Your task to perform on an android device: remove spam from my inbox in the gmail app Image 0: 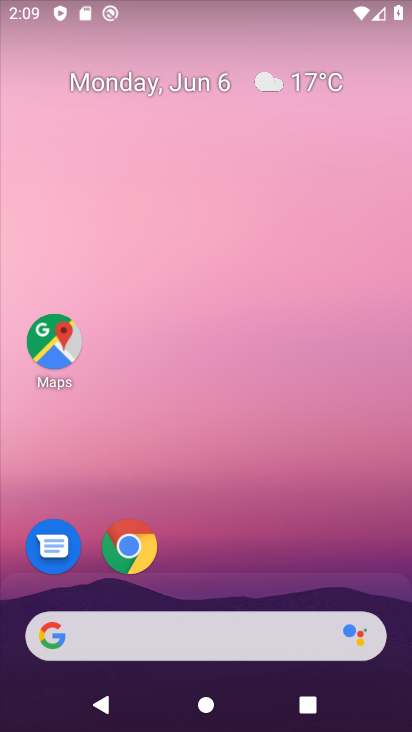
Step 0: drag from (255, 445) to (263, 210)
Your task to perform on an android device: remove spam from my inbox in the gmail app Image 1: 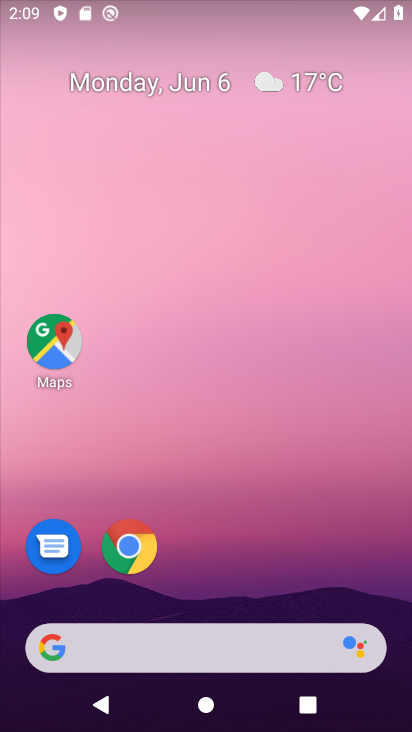
Step 1: drag from (261, 437) to (261, 292)
Your task to perform on an android device: remove spam from my inbox in the gmail app Image 2: 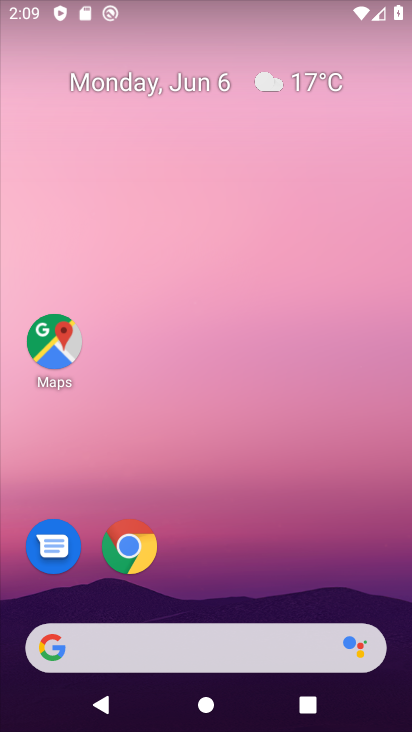
Step 2: drag from (254, 552) to (211, 268)
Your task to perform on an android device: remove spam from my inbox in the gmail app Image 3: 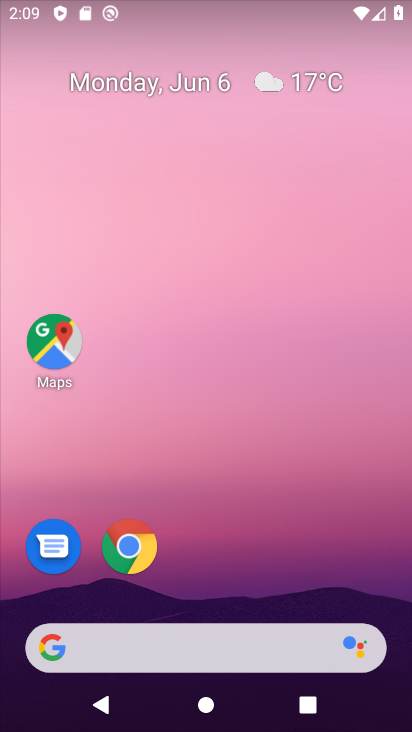
Step 3: drag from (245, 610) to (243, 222)
Your task to perform on an android device: remove spam from my inbox in the gmail app Image 4: 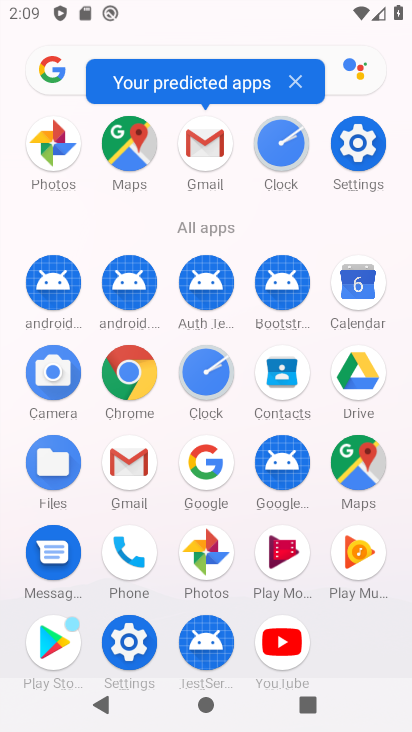
Step 4: click (120, 460)
Your task to perform on an android device: remove spam from my inbox in the gmail app Image 5: 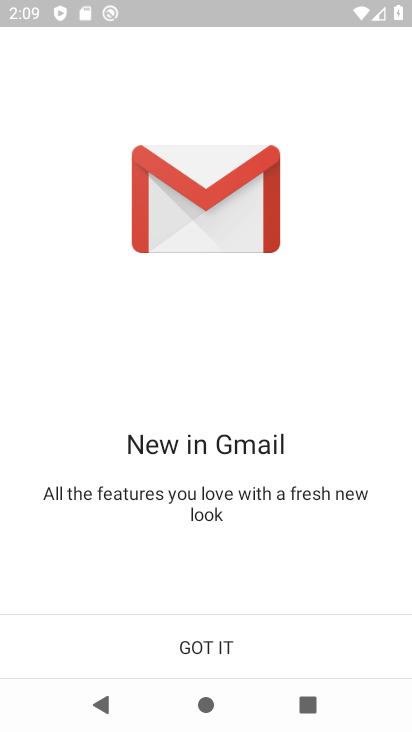
Step 5: click (224, 652)
Your task to perform on an android device: remove spam from my inbox in the gmail app Image 6: 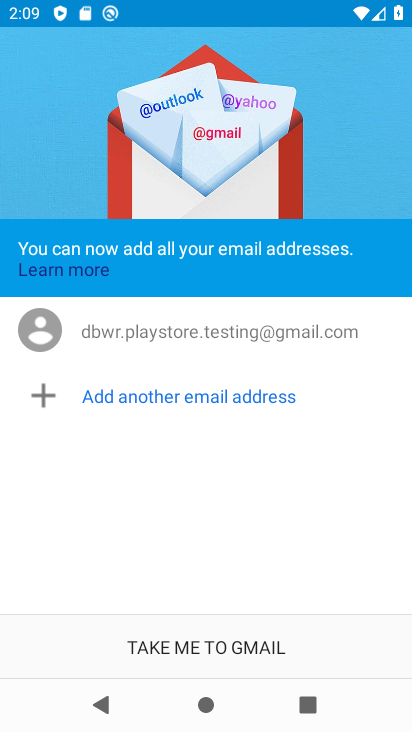
Step 6: click (224, 651)
Your task to perform on an android device: remove spam from my inbox in the gmail app Image 7: 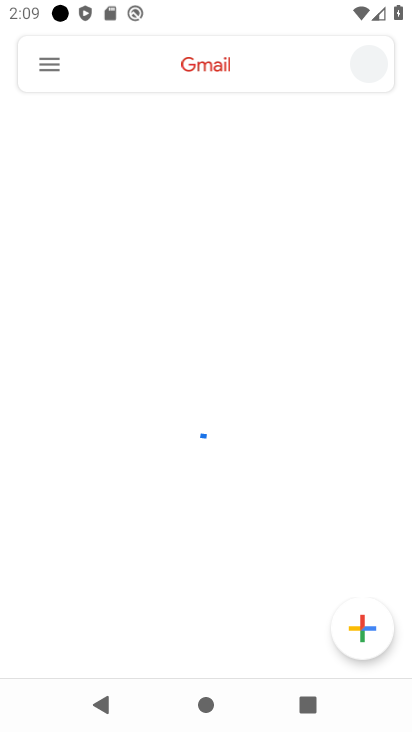
Step 7: click (51, 48)
Your task to perform on an android device: remove spam from my inbox in the gmail app Image 8: 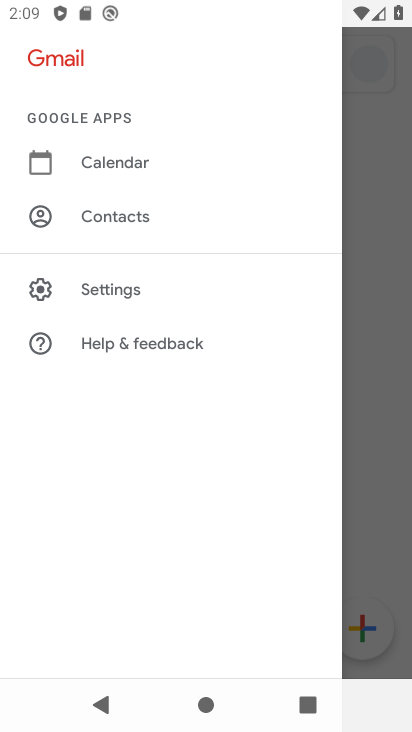
Step 8: click (92, 291)
Your task to perform on an android device: remove spam from my inbox in the gmail app Image 9: 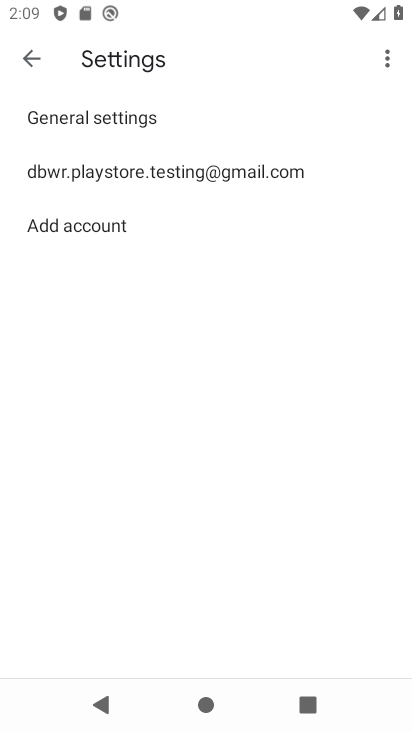
Step 9: click (91, 691)
Your task to perform on an android device: remove spam from my inbox in the gmail app Image 10: 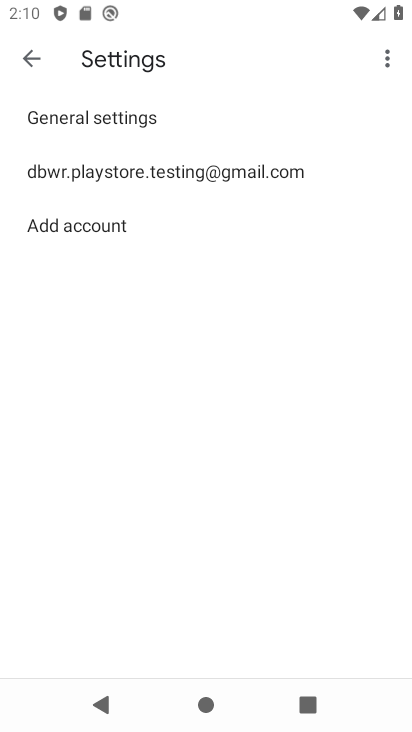
Step 10: press back button
Your task to perform on an android device: remove spam from my inbox in the gmail app Image 11: 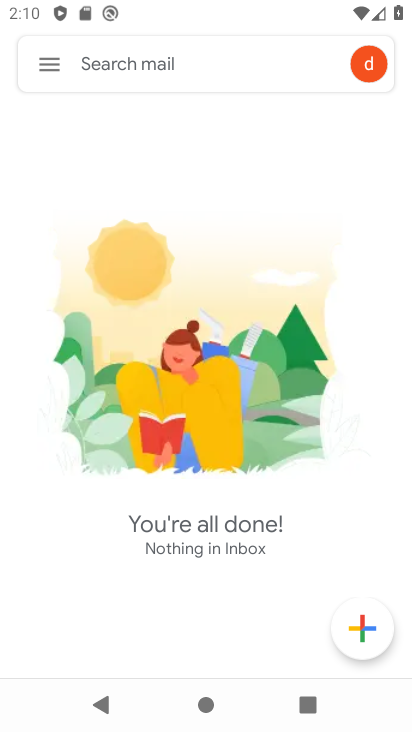
Step 11: click (52, 61)
Your task to perform on an android device: remove spam from my inbox in the gmail app Image 12: 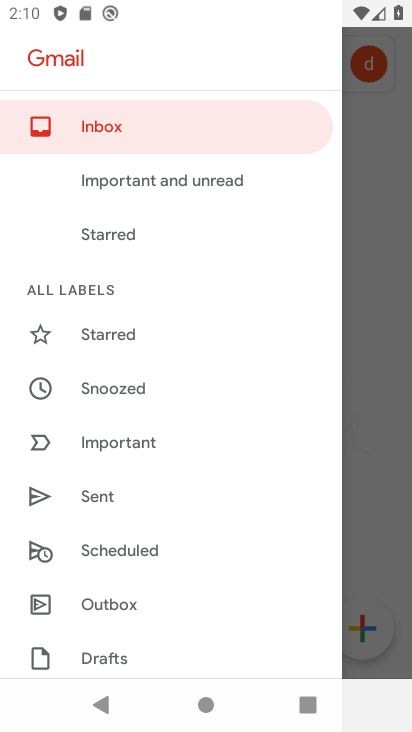
Step 12: drag from (111, 613) to (169, 301)
Your task to perform on an android device: remove spam from my inbox in the gmail app Image 13: 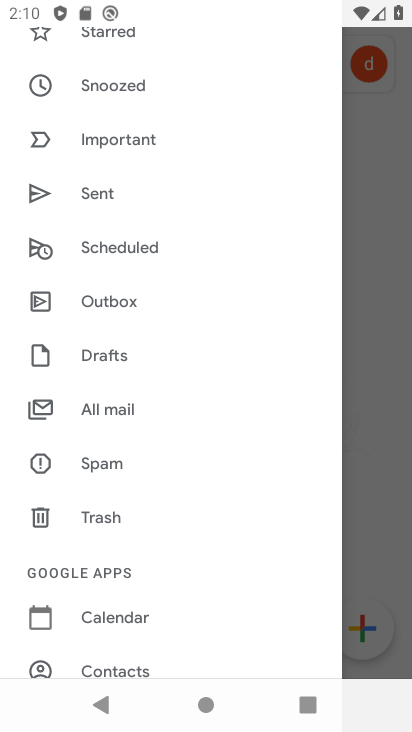
Step 13: click (101, 461)
Your task to perform on an android device: remove spam from my inbox in the gmail app Image 14: 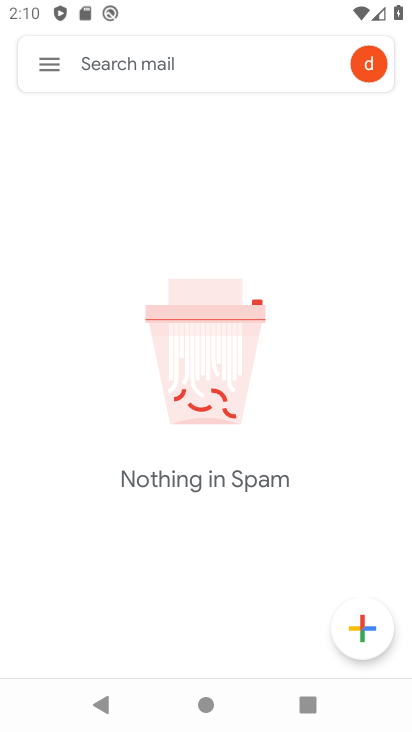
Step 14: task complete